Your task to perform on an android device: Open internet settings Image 0: 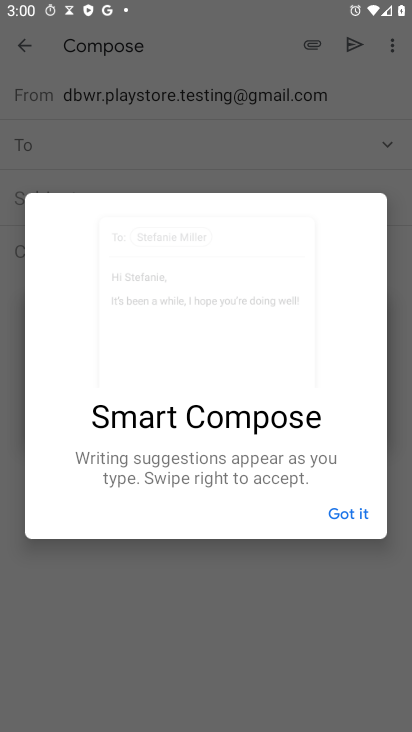
Step 0: press home button
Your task to perform on an android device: Open internet settings Image 1: 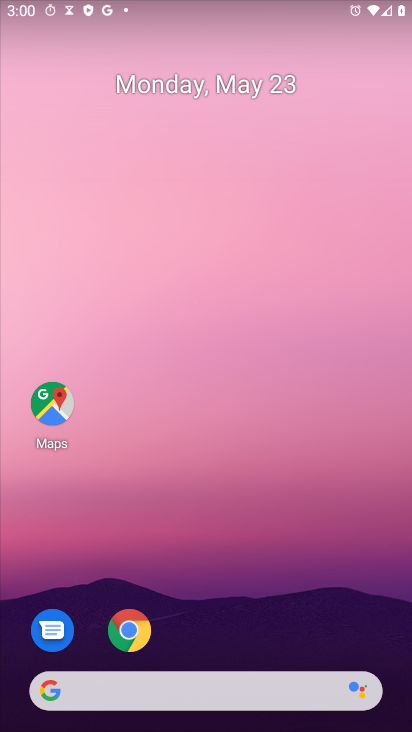
Step 1: drag from (318, 549) to (307, 3)
Your task to perform on an android device: Open internet settings Image 2: 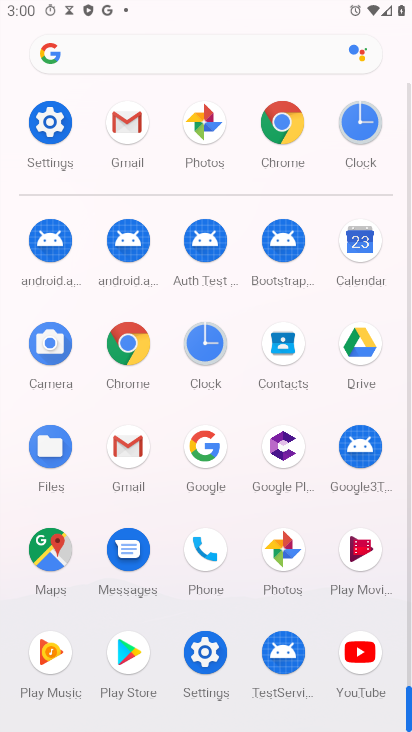
Step 2: click (32, 148)
Your task to perform on an android device: Open internet settings Image 3: 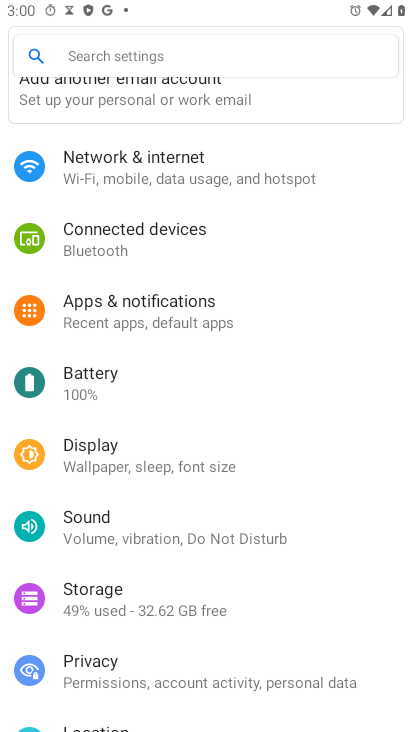
Step 3: click (101, 165)
Your task to perform on an android device: Open internet settings Image 4: 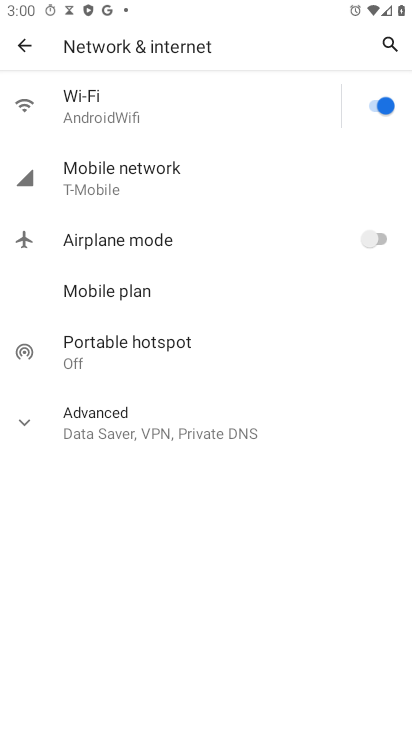
Step 4: task complete